Your task to perform on an android device: Set the phone to "Do not disturb". Image 0: 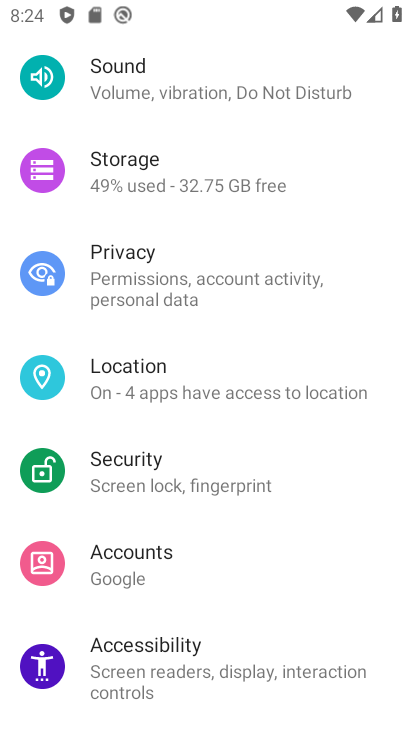
Step 0: drag from (242, 0) to (175, 598)
Your task to perform on an android device: Set the phone to "Do not disturb". Image 1: 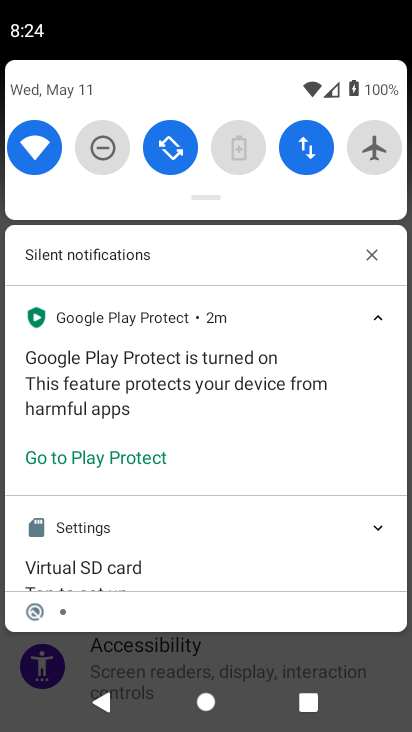
Step 1: click (95, 138)
Your task to perform on an android device: Set the phone to "Do not disturb". Image 2: 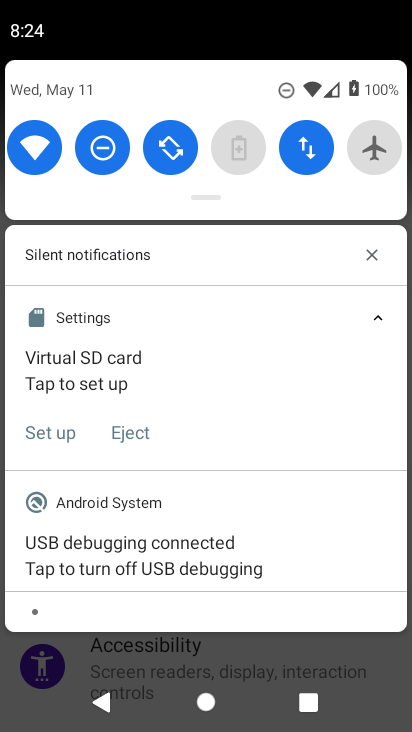
Step 2: task complete